Your task to perform on an android device: open sync settings in chrome Image 0: 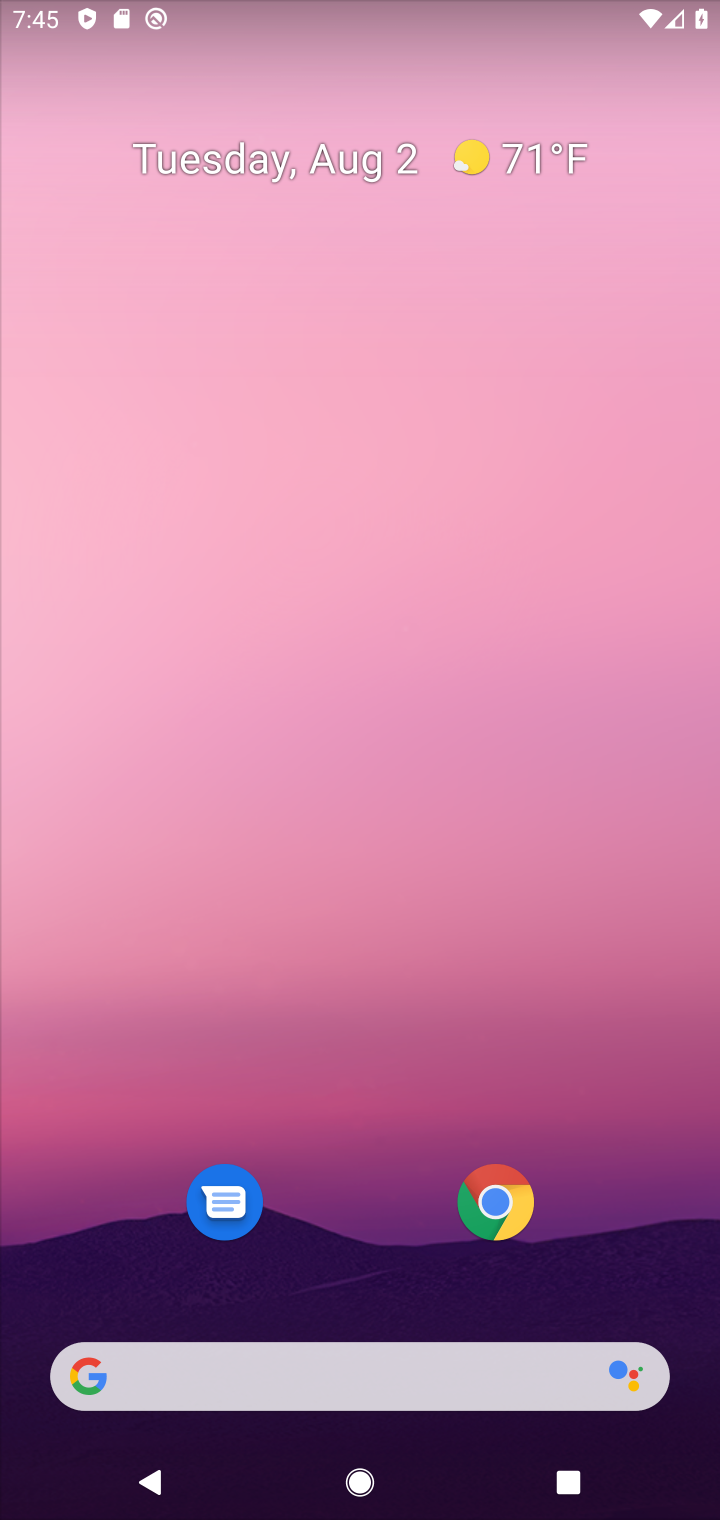
Step 0: click (504, 1215)
Your task to perform on an android device: open sync settings in chrome Image 1: 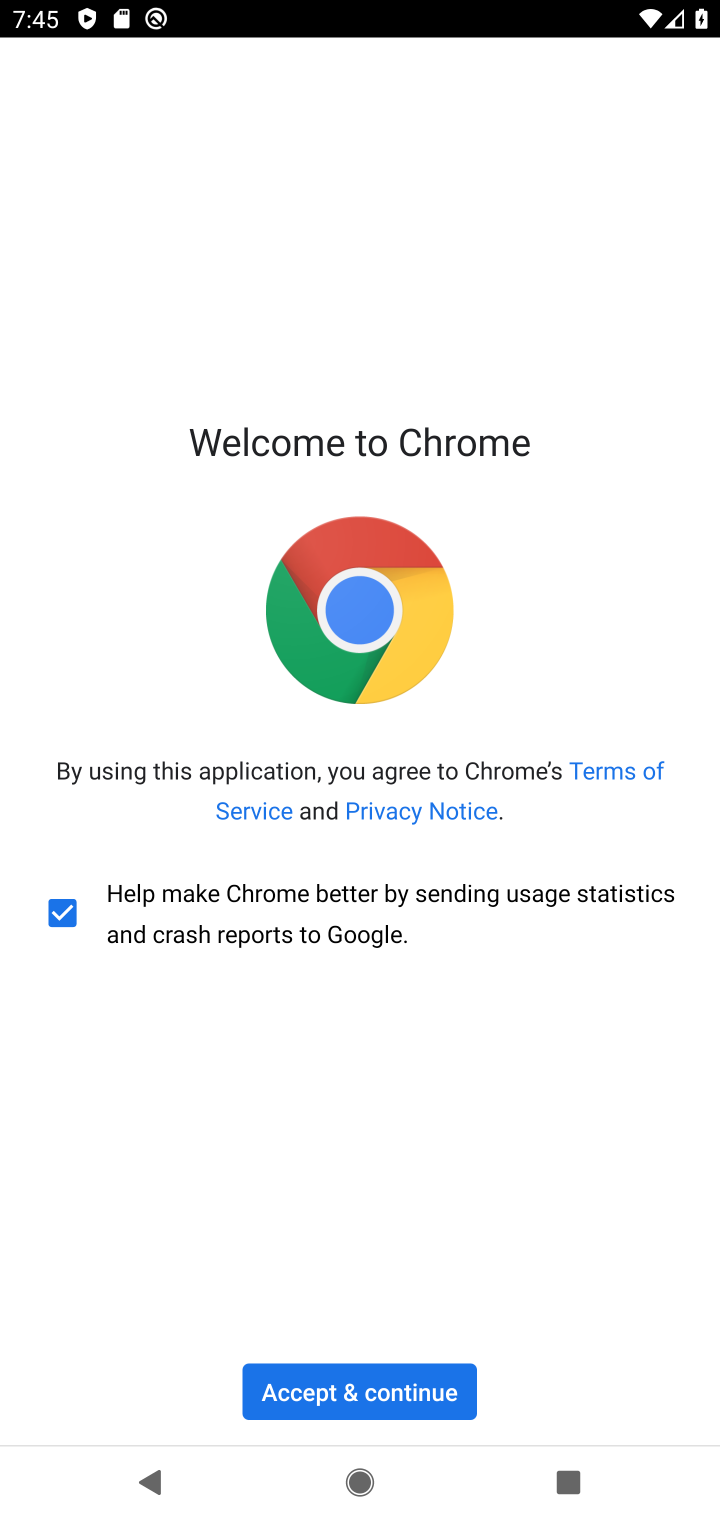
Step 1: click (312, 1389)
Your task to perform on an android device: open sync settings in chrome Image 2: 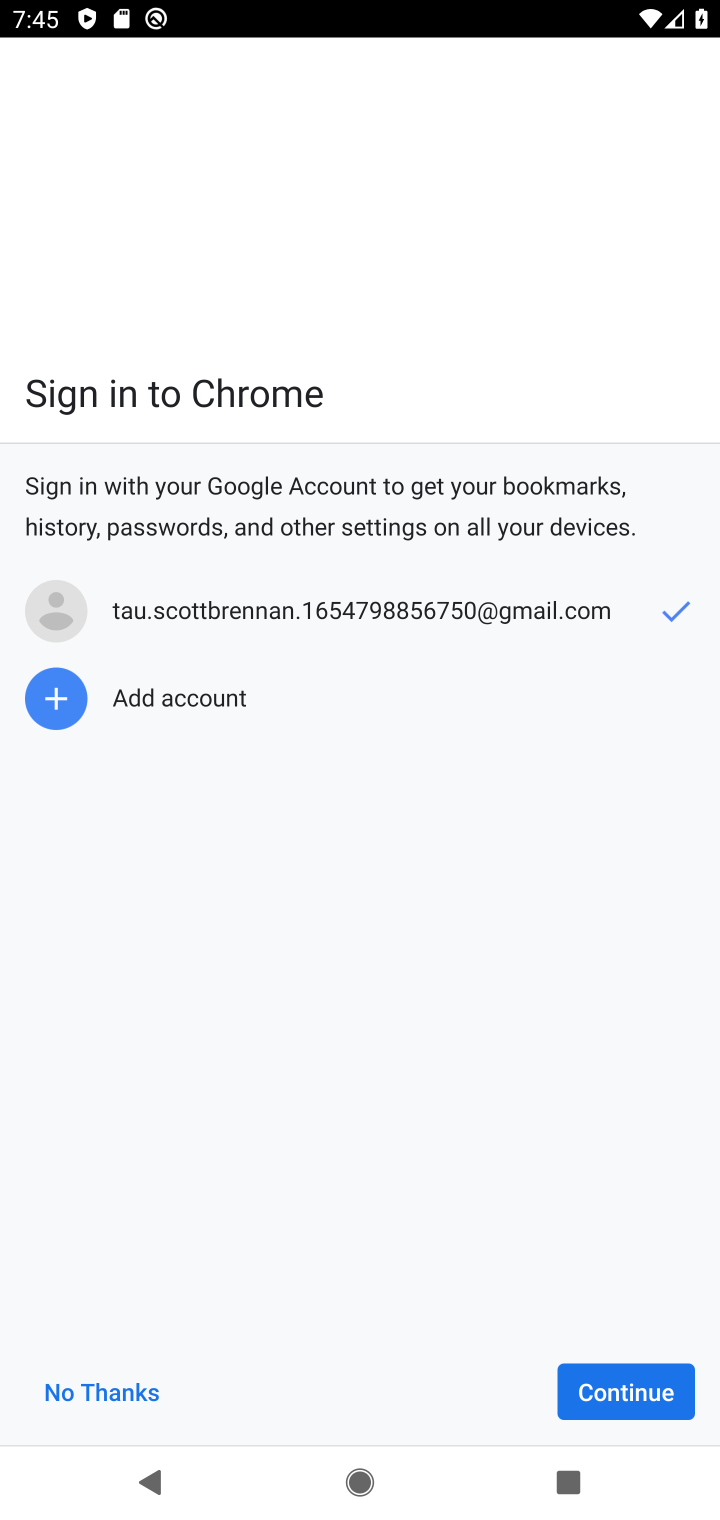
Step 2: click (114, 1398)
Your task to perform on an android device: open sync settings in chrome Image 3: 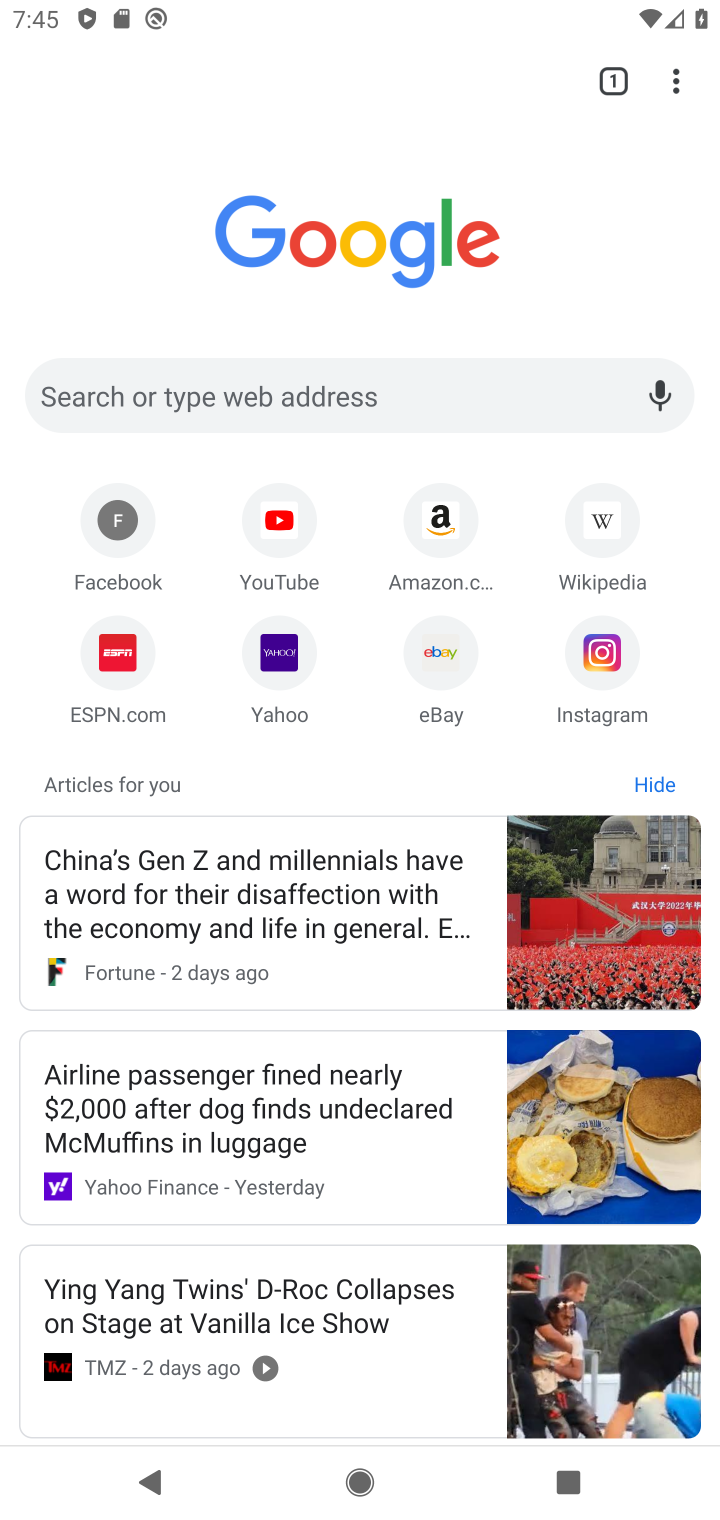
Step 3: click (680, 79)
Your task to perform on an android device: open sync settings in chrome Image 4: 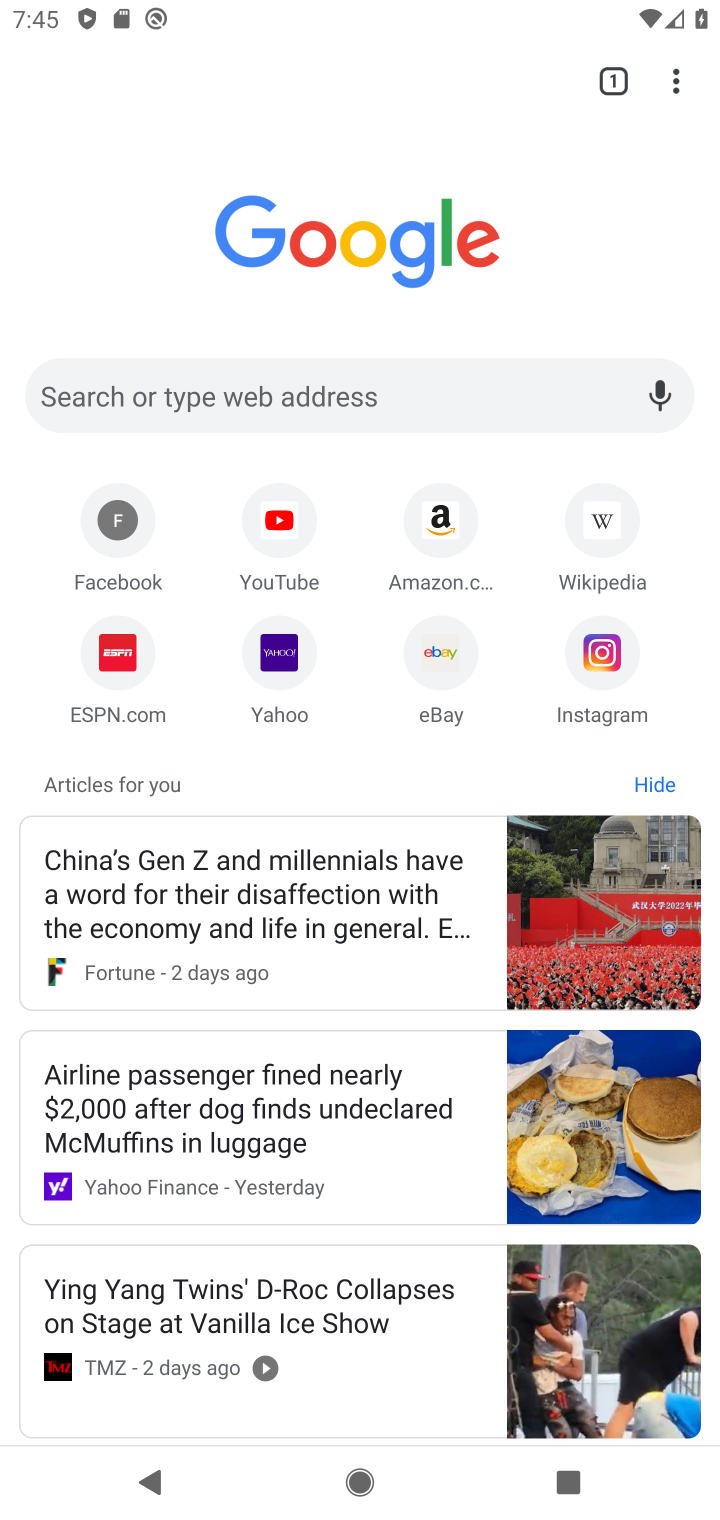
Step 4: click (677, 83)
Your task to perform on an android device: open sync settings in chrome Image 5: 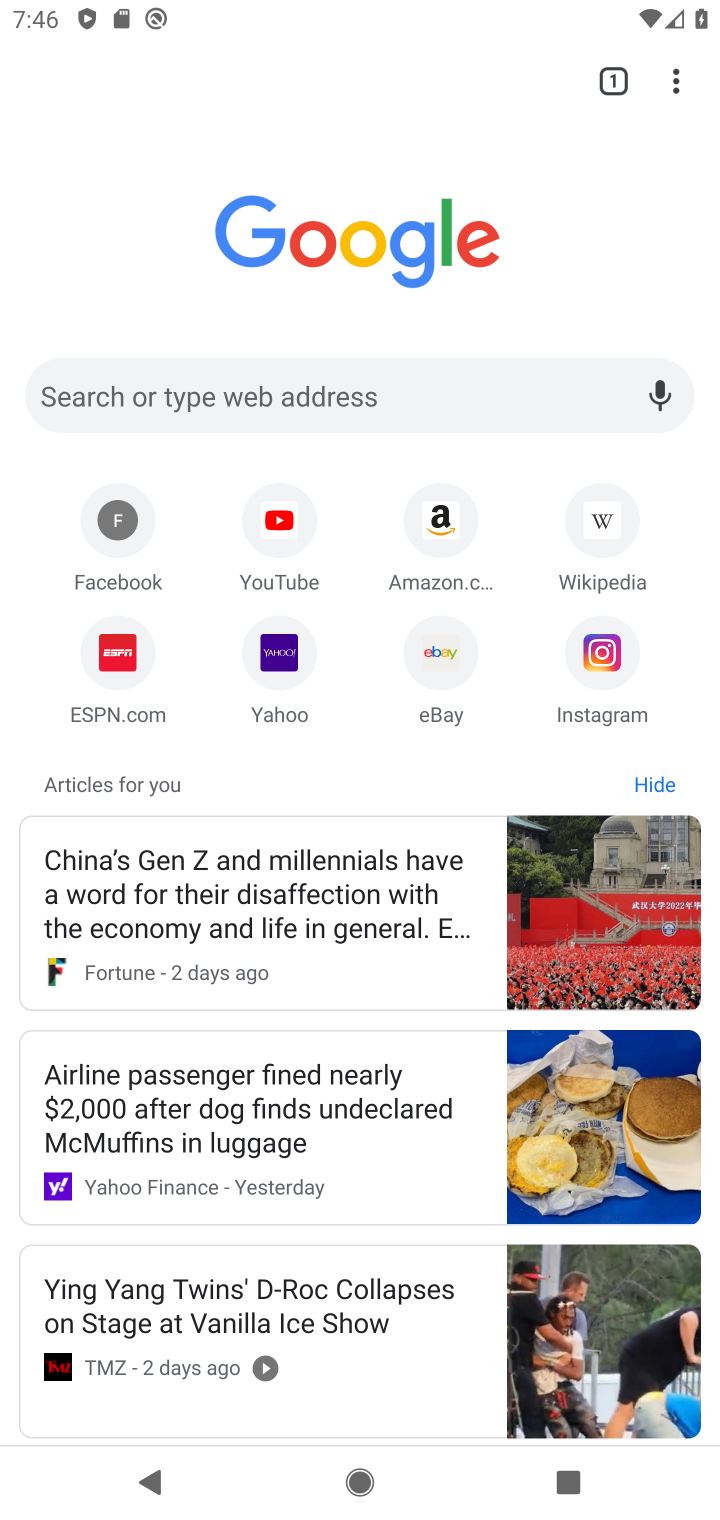
Step 5: click (677, 85)
Your task to perform on an android device: open sync settings in chrome Image 6: 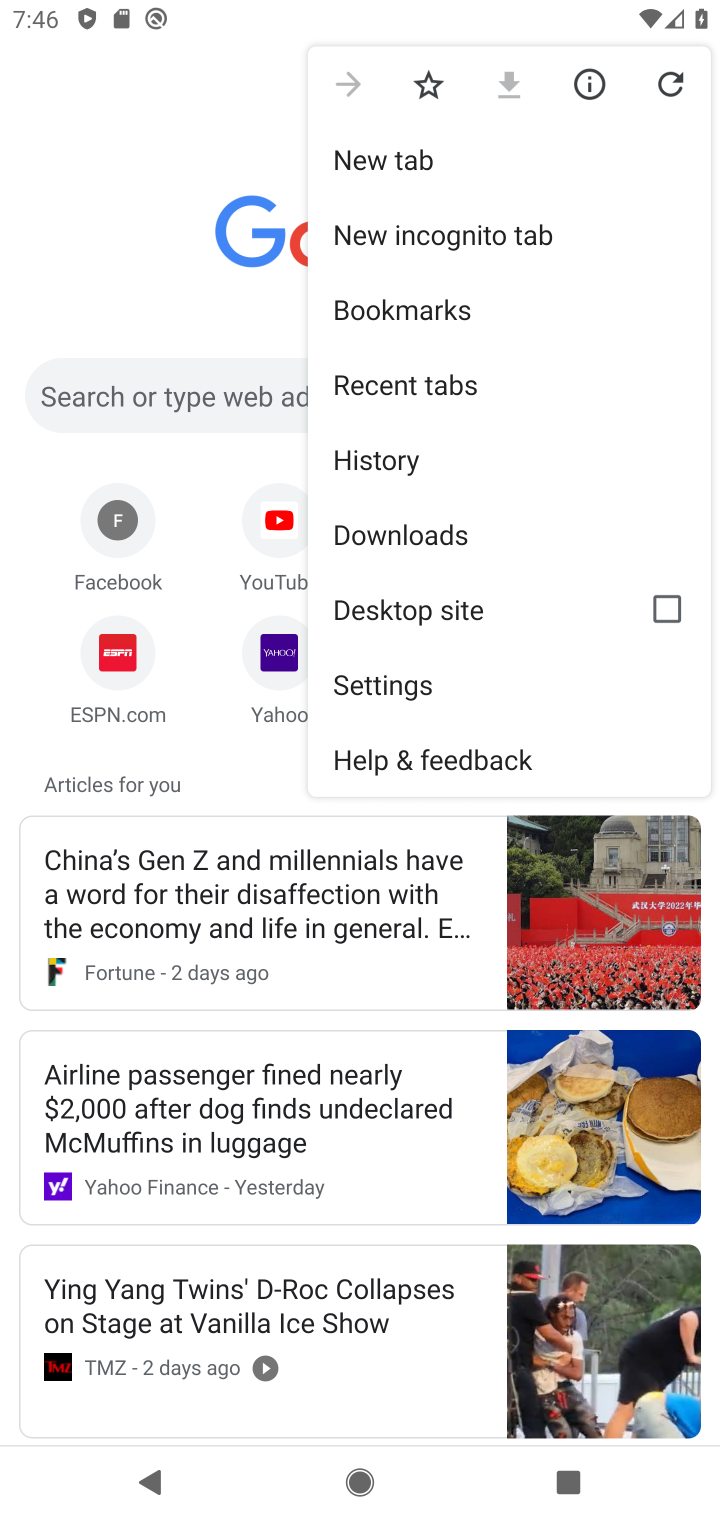
Step 6: click (395, 690)
Your task to perform on an android device: open sync settings in chrome Image 7: 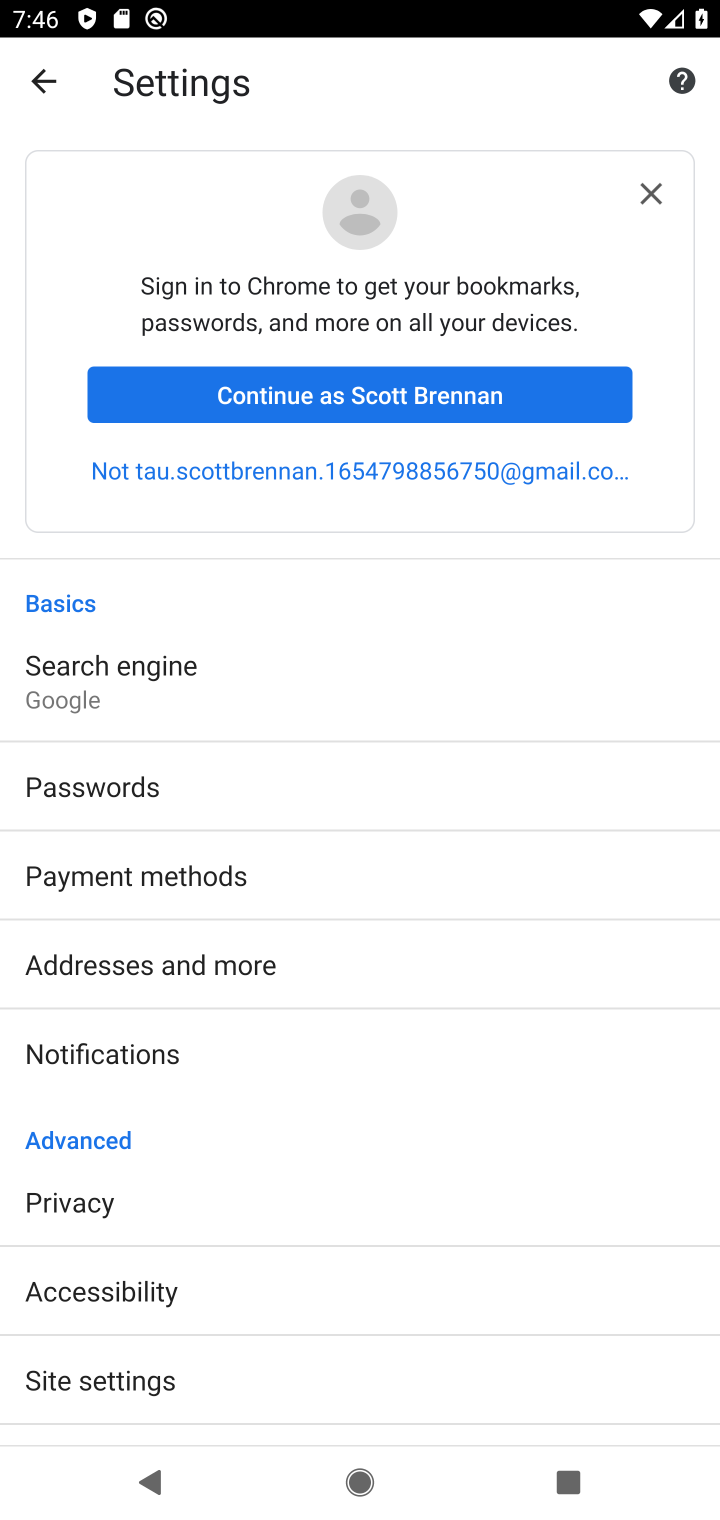
Step 7: click (330, 397)
Your task to perform on an android device: open sync settings in chrome Image 8: 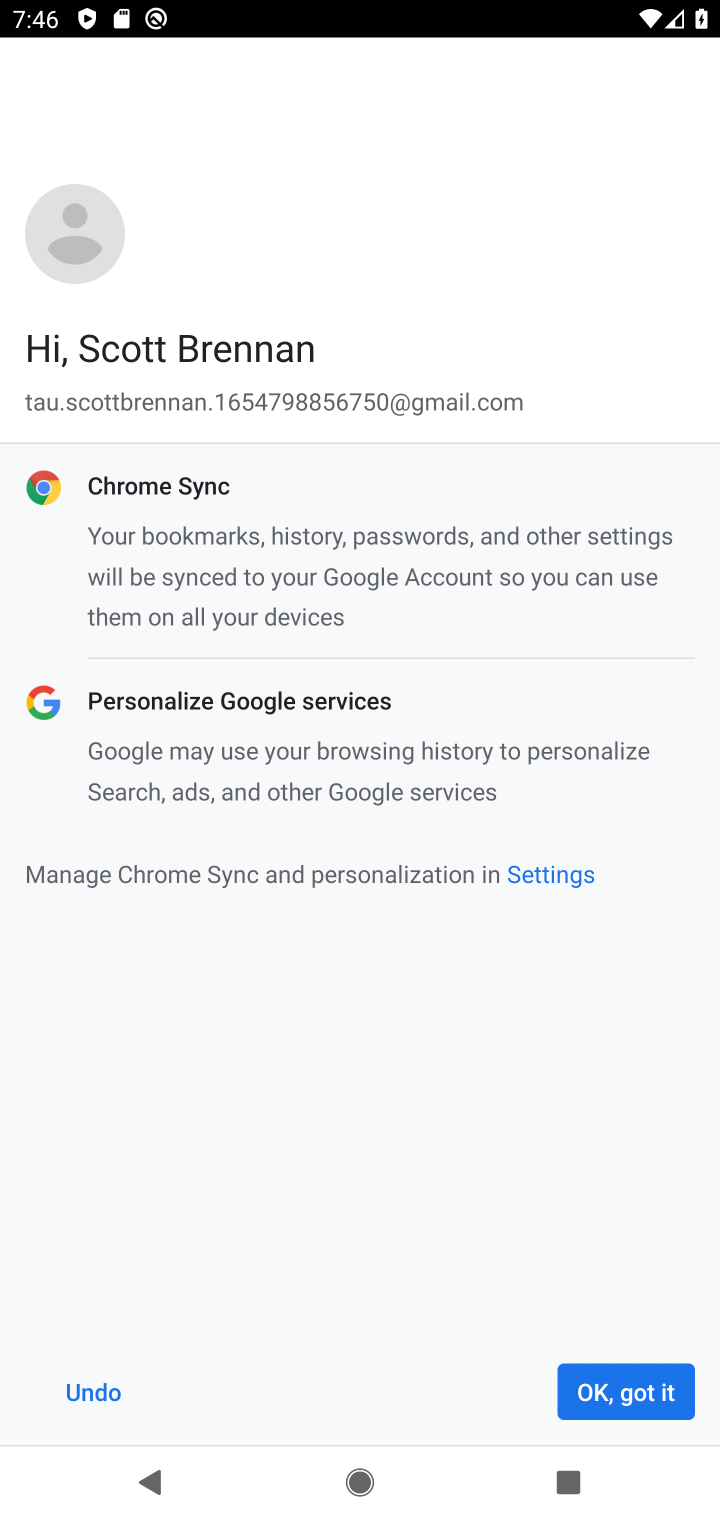
Step 8: click (614, 1404)
Your task to perform on an android device: open sync settings in chrome Image 9: 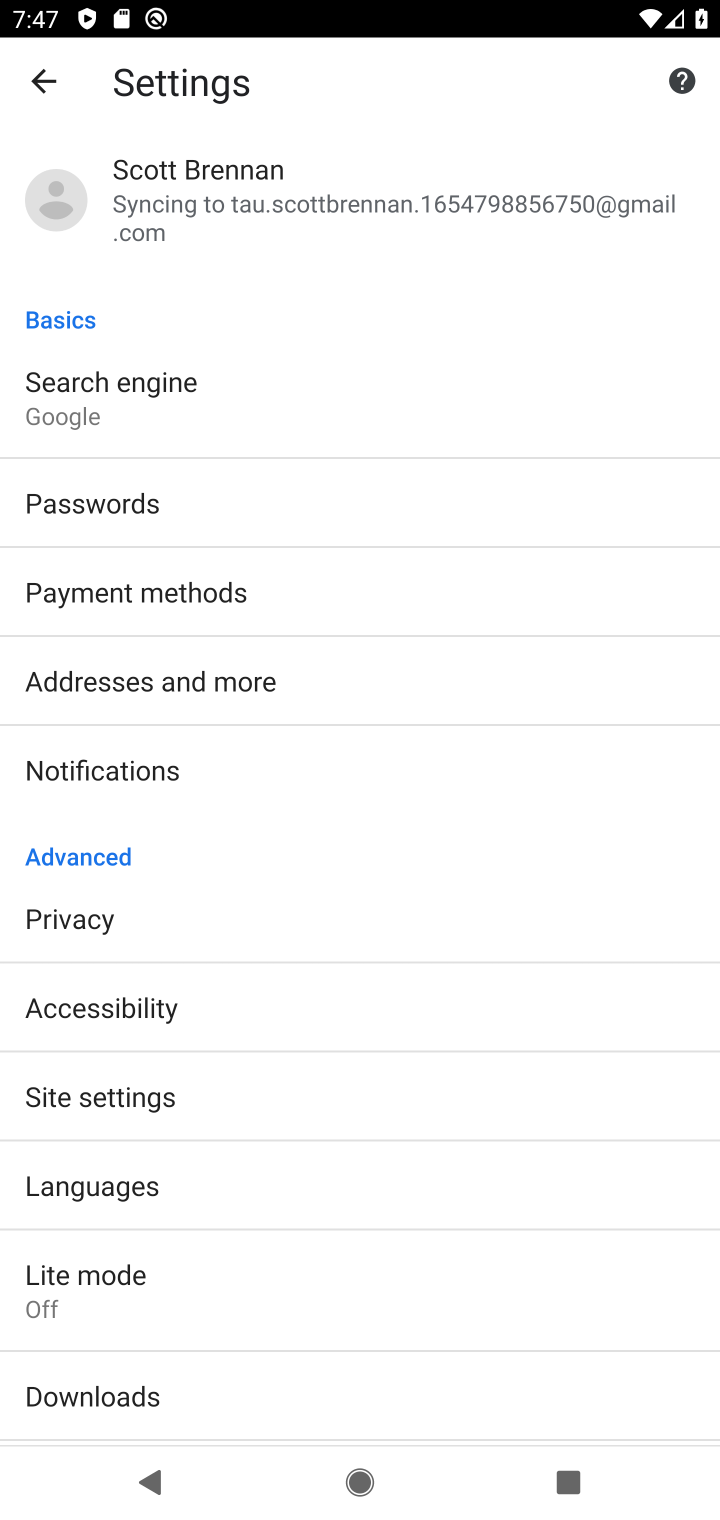
Step 9: click (198, 200)
Your task to perform on an android device: open sync settings in chrome Image 10: 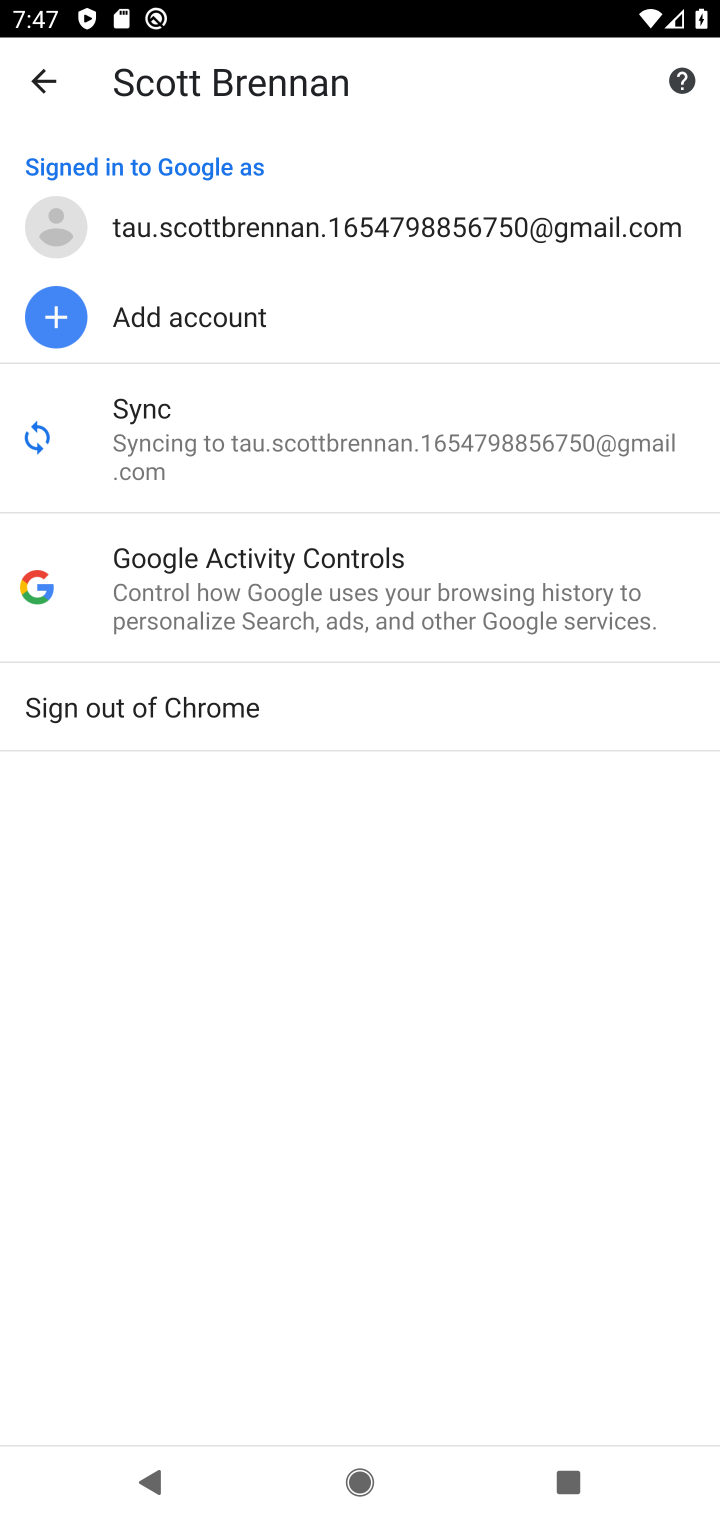
Step 10: click (163, 435)
Your task to perform on an android device: open sync settings in chrome Image 11: 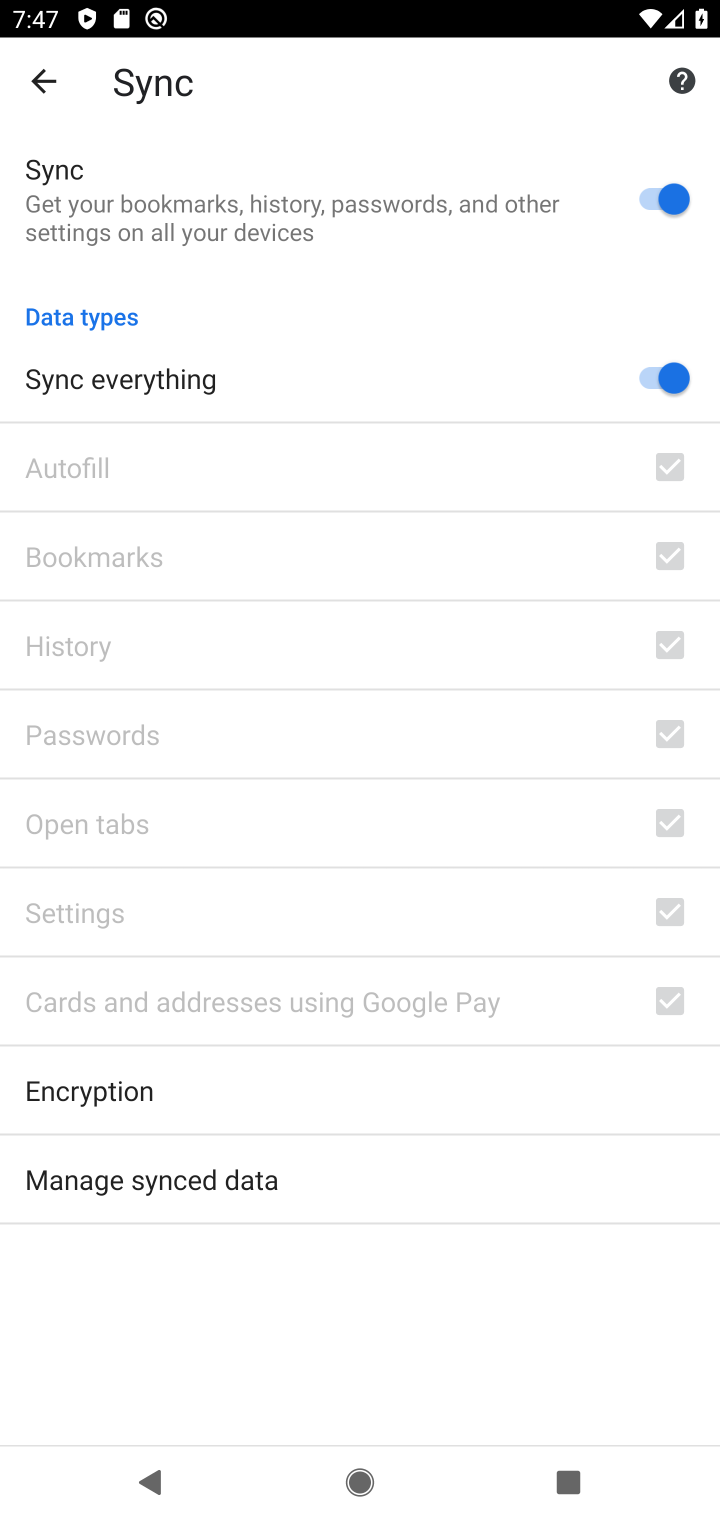
Step 11: task complete